Your task to perform on an android device: toggle show notifications on the lock screen Image 0: 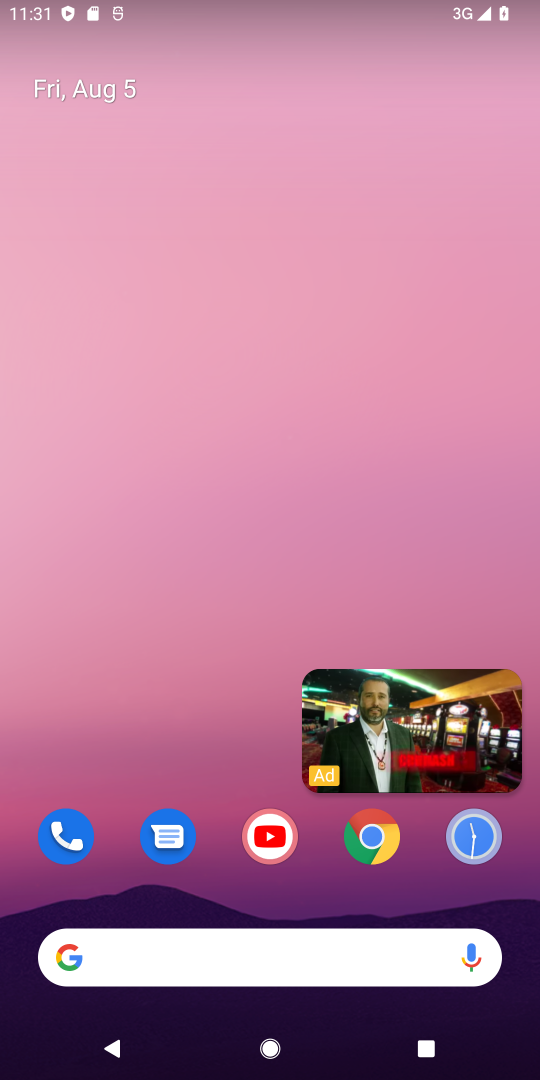
Step 0: click (496, 695)
Your task to perform on an android device: toggle show notifications on the lock screen Image 1: 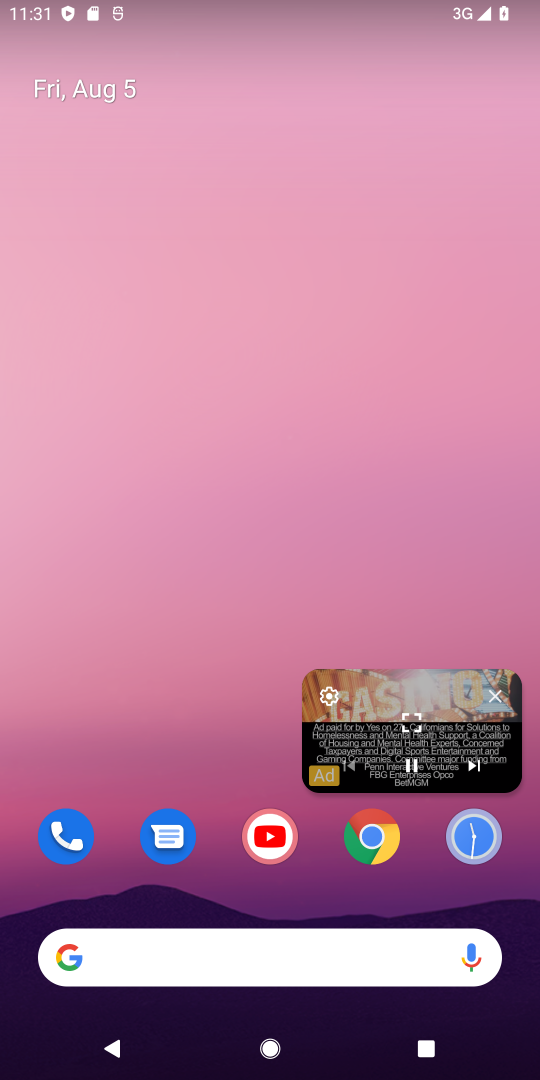
Step 1: click (496, 702)
Your task to perform on an android device: toggle show notifications on the lock screen Image 2: 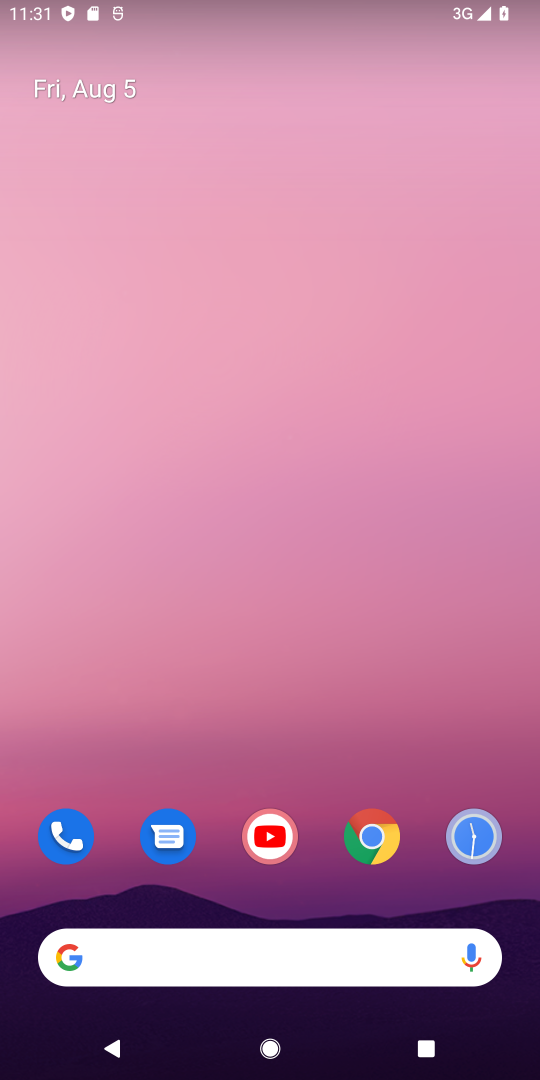
Step 2: click (497, 696)
Your task to perform on an android device: toggle show notifications on the lock screen Image 3: 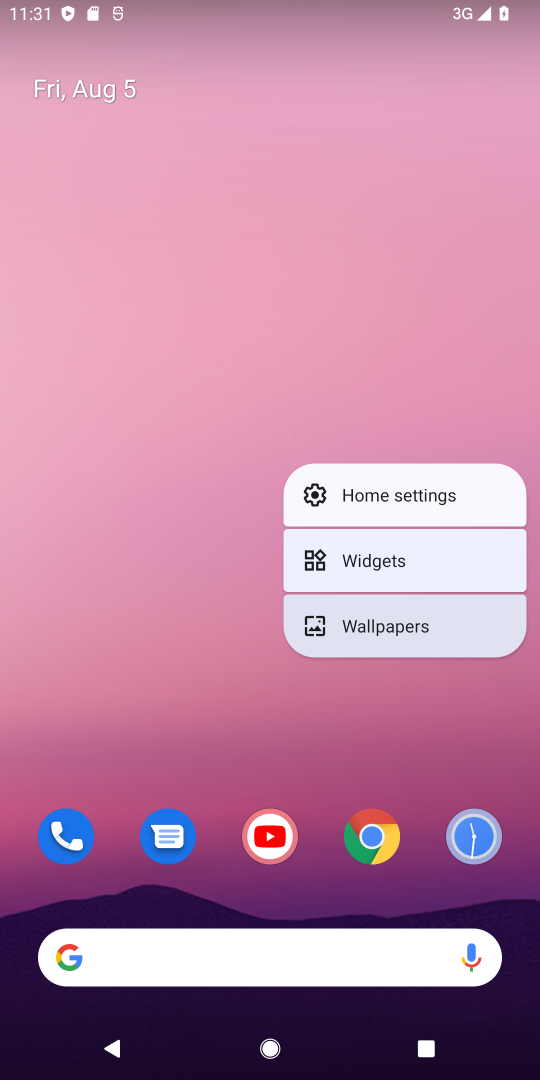
Step 3: click (428, 721)
Your task to perform on an android device: toggle show notifications on the lock screen Image 4: 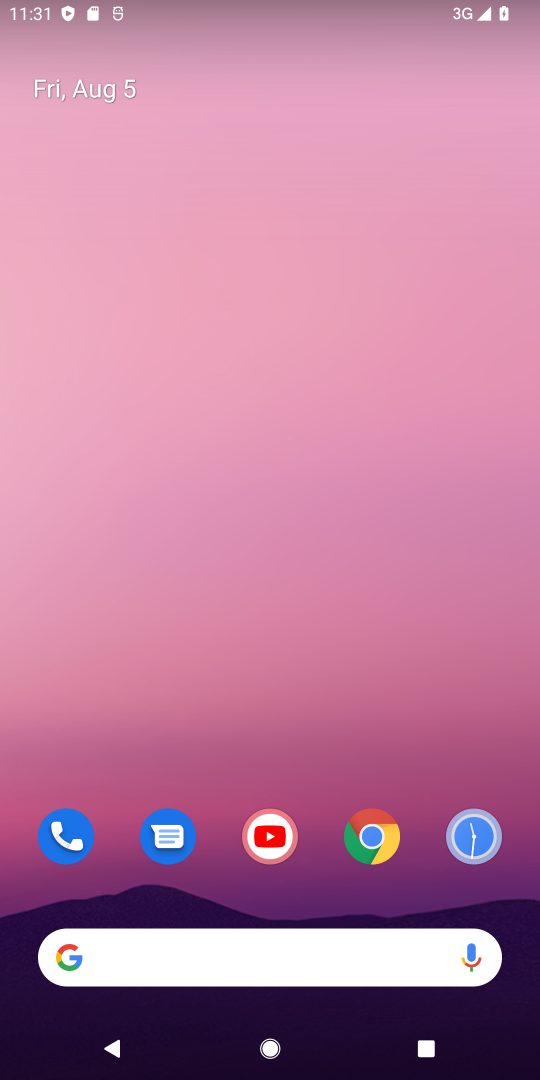
Step 4: drag from (320, 721) to (440, 7)
Your task to perform on an android device: toggle show notifications on the lock screen Image 5: 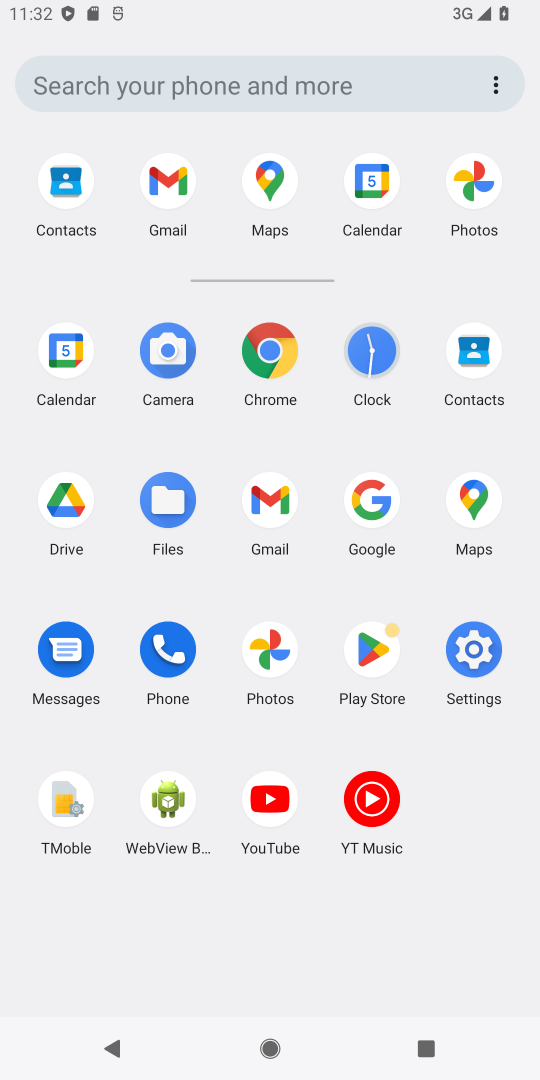
Step 5: click (468, 643)
Your task to perform on an android device: toggle show notifications on the lock screen Image 6: 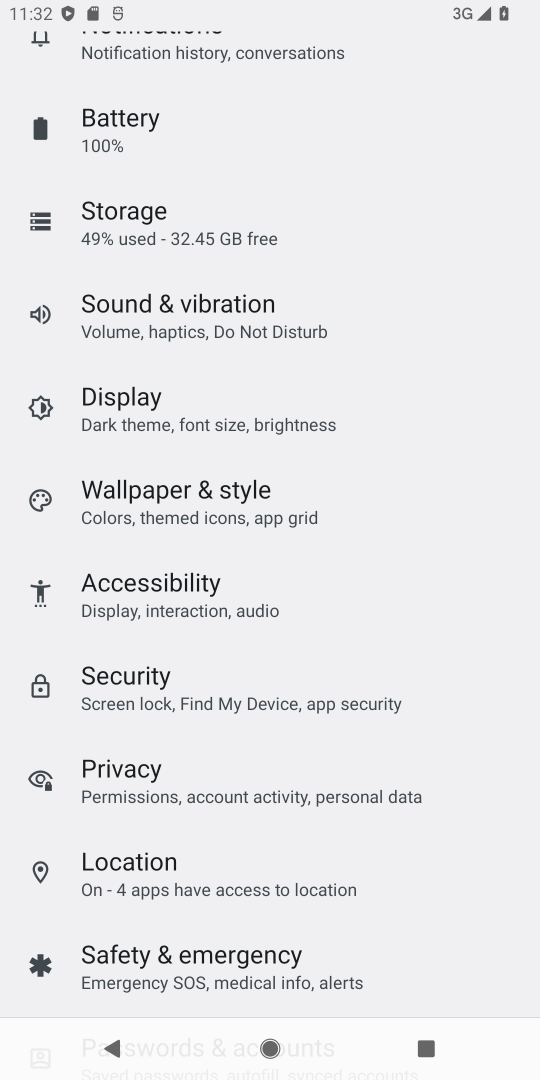
Step 6: click (274, 59)
Your task to perform on an android device: toggle show notifications on the lock screen Image 7: 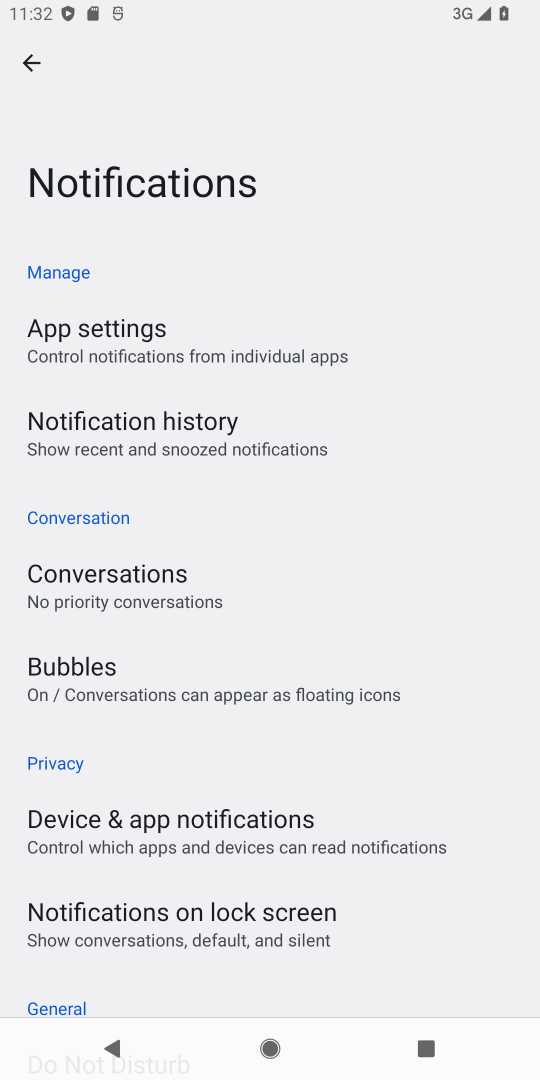
Step 7: click (278, 939)
Your task to perform on an android device: toggle show notifications on the lock screen Image 8: 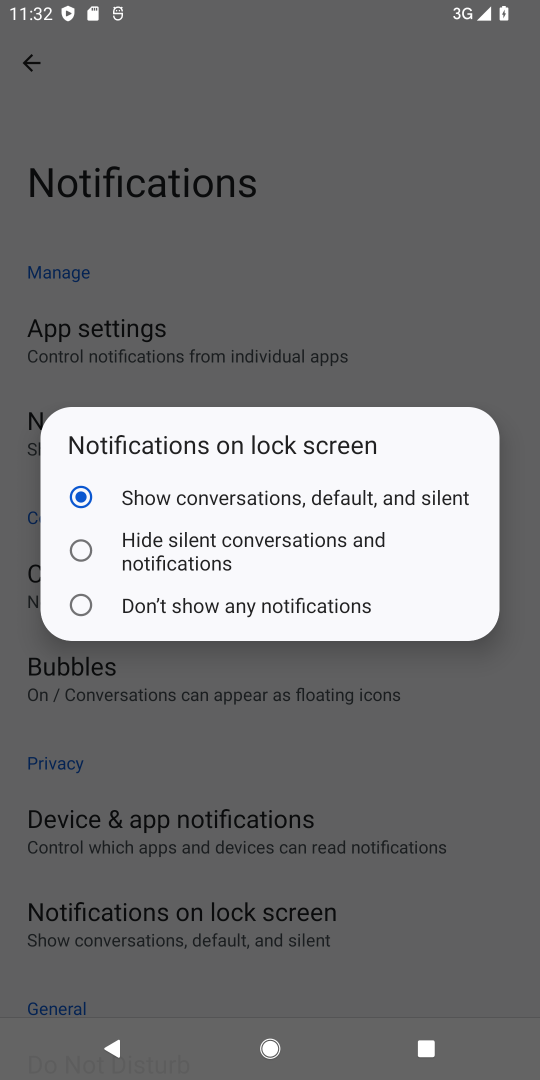
Step 8: click (265, 599)
Your task to perform on an android device: toggle show notifications on the lock screen Image 9: 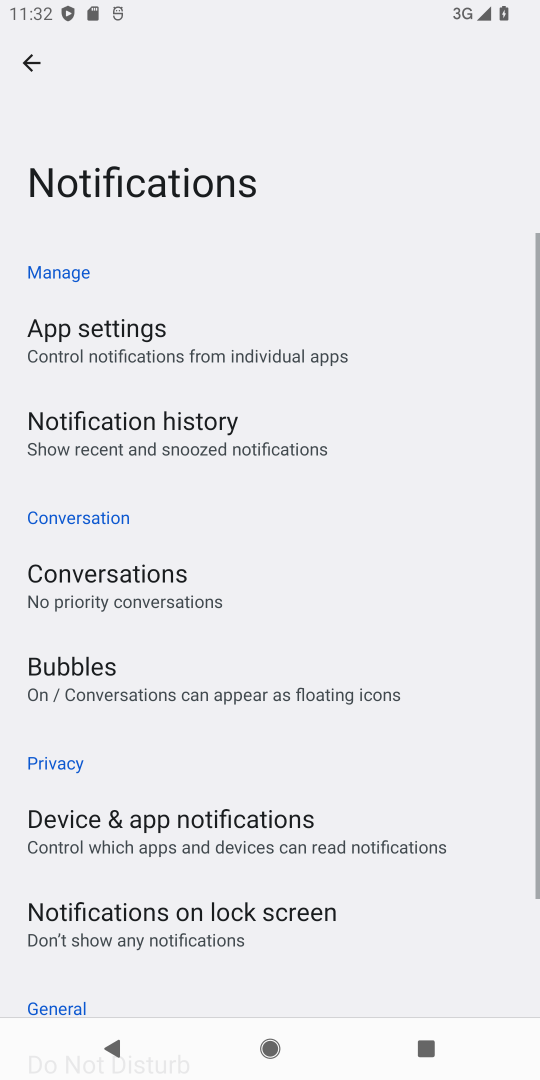
Step 9: task complete